Your task to perform on an android device: Open CNN.com Image 0: 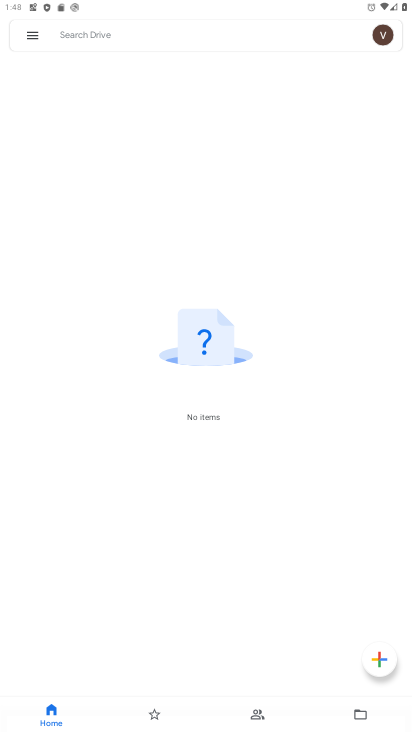
Step 0: press home button
Your task to perform on an android device: Open CNN.com Image 1: 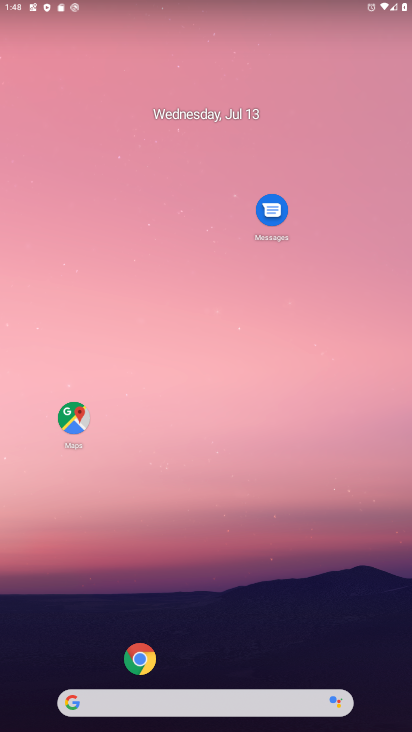
Step 1: click (167, 692)
Your task to perform on an android device: Open CNN.com Image 2: 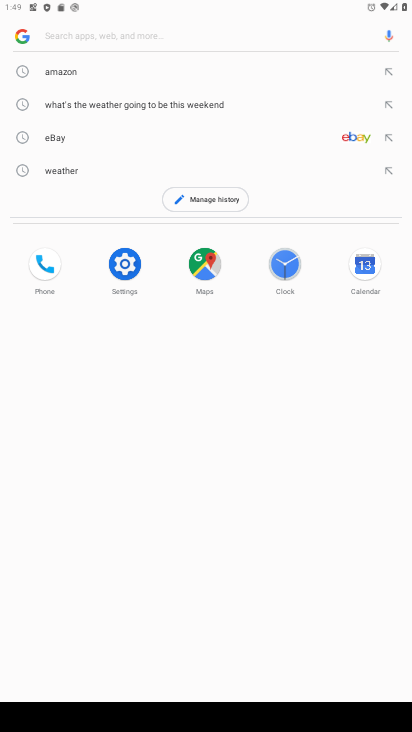
Step 2: type "CNN.com"
Your task to perform on an android device: Open CNN.com Image 3: 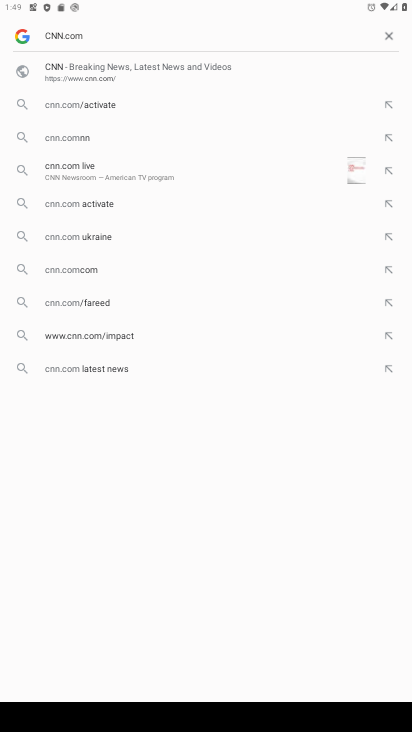
Step 3: type ""
Your task to perform on an android device: Open CNN.com Image 4: 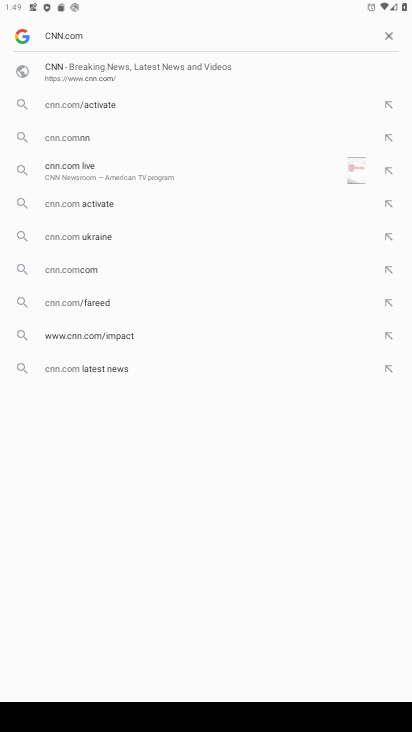
Step 4: task complete